Your task to perform on an android device: create a new album in the google photos Image 0: 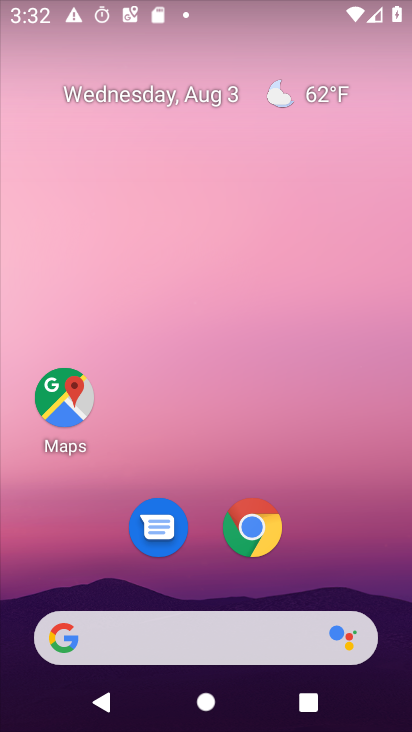
Step 0: drag from (359, 542) to (207, 78)
Your task to perform on an android device: create a new album in the google photos Image 1: 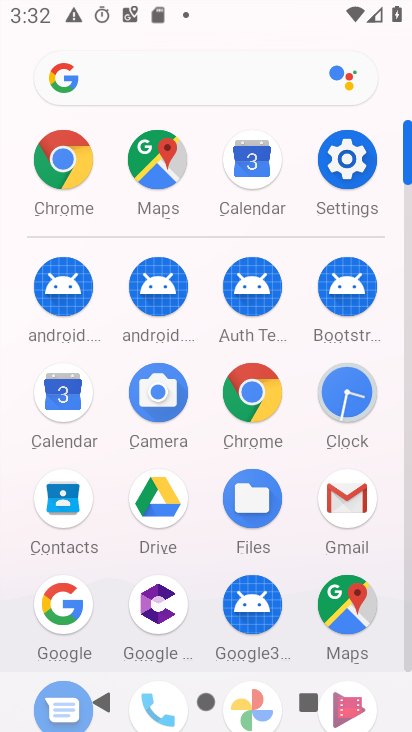
Step 1: drag from (198, 550) to (188, 288)
Your task to perform on an android device: create a new album in the google photos Image 2: 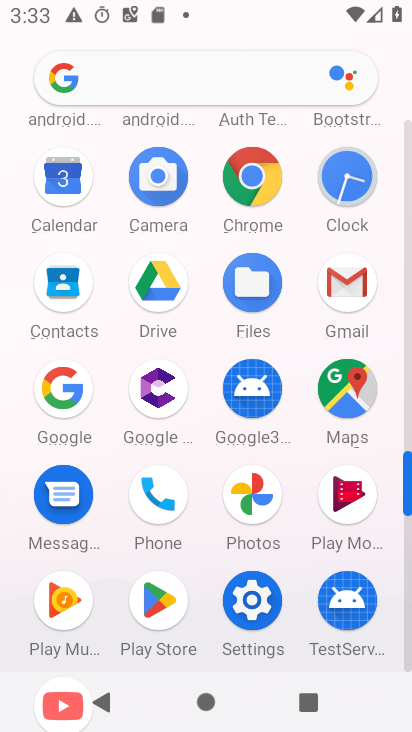
Step 2: click (253, 500)
Your task to perform on an android device: create a new album in the google photos Image 3: 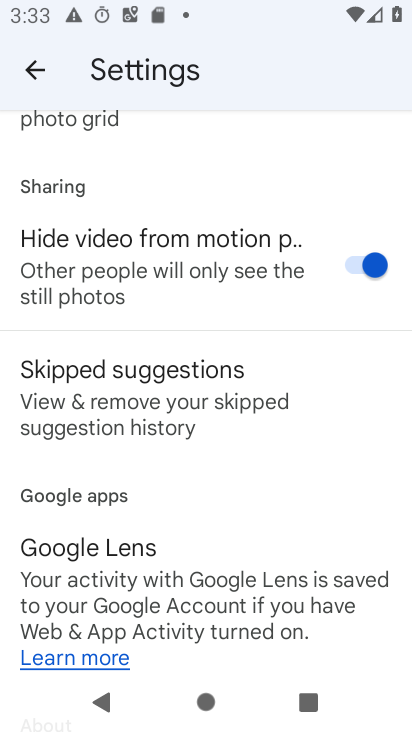
Step 3: click (26, 77)
Your task to perform on an android device: create a new album in the google photos Image 4: 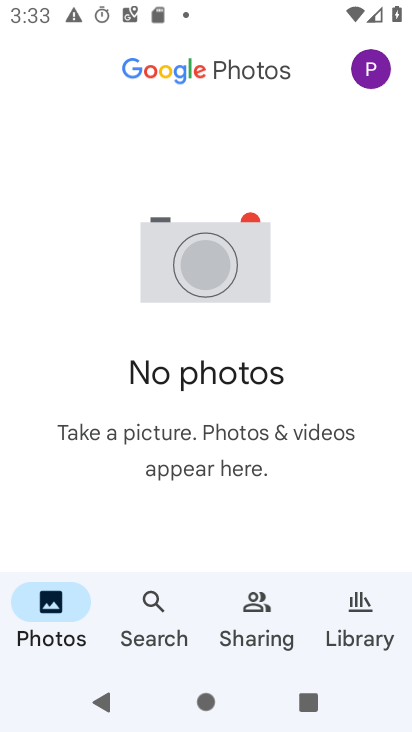
Step 4: click (362, 612)
Your task to perform on an android device: create a new album in the google photos Image 5: 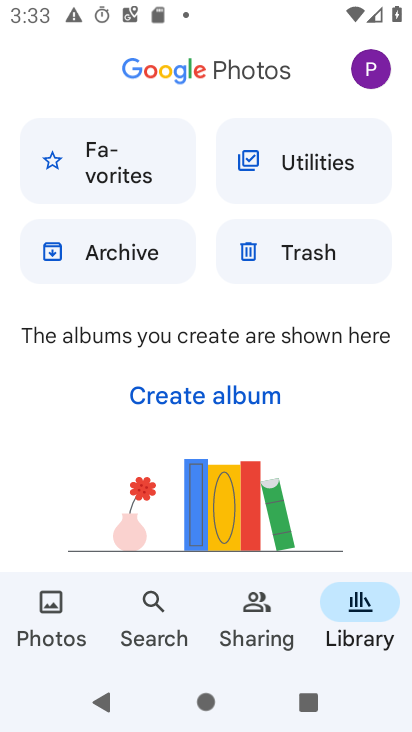
Step 5: click (208, 406)
Your task to perform on an android device: create a new album in the google photos Image 6: 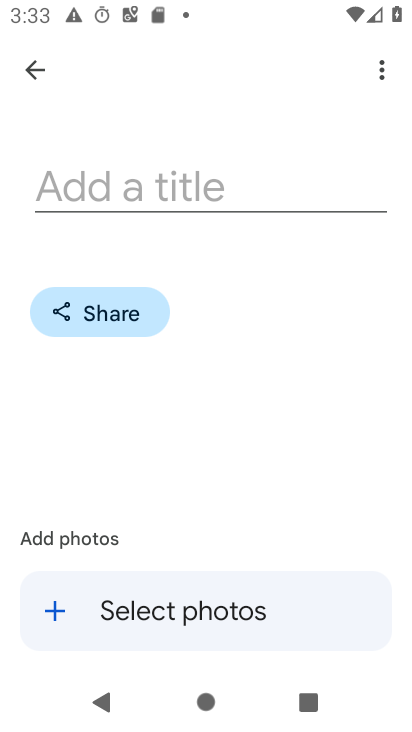
Step 6: click (161, 187)
Your task to perform on an android device: create a new album in the google photos Image 7: 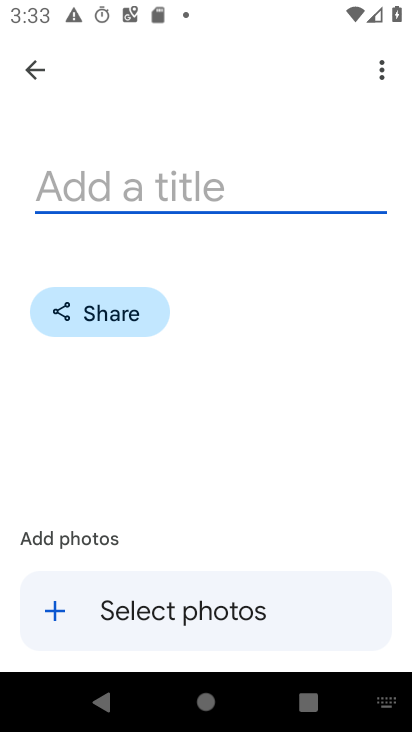
Step 7: type "holpo"
Your task to perform on an android device: create a new album in the google photos Image 8: 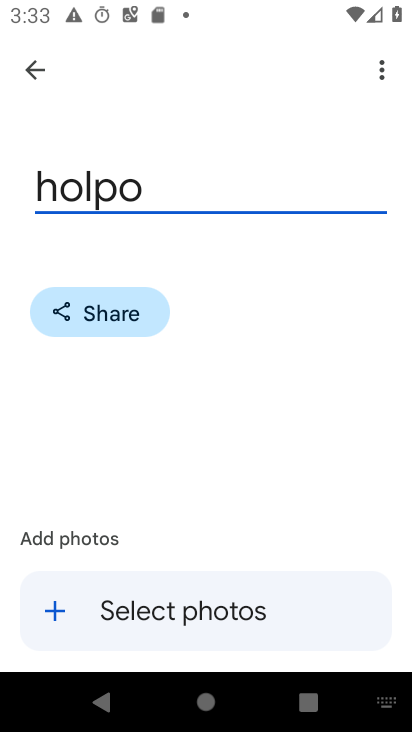
Step 8: click (28, 66)
Your task to perform on an android device: create a new album in the google photos Image 9: 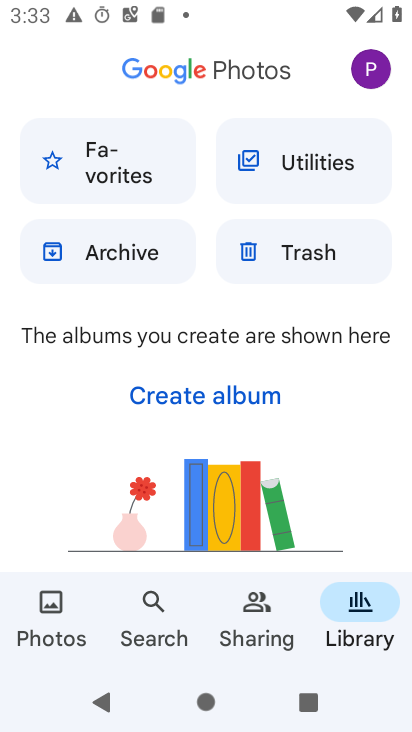
Step 9: task complete